Your task to perform on an android device: clear history in the chrome app Image 0: 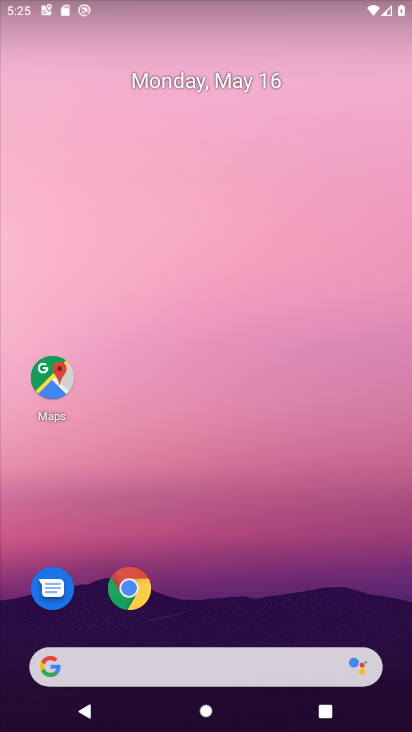
Step 0: click (140, 596)
Your task to perform on an android device: clear history in the chrome app Image 1: 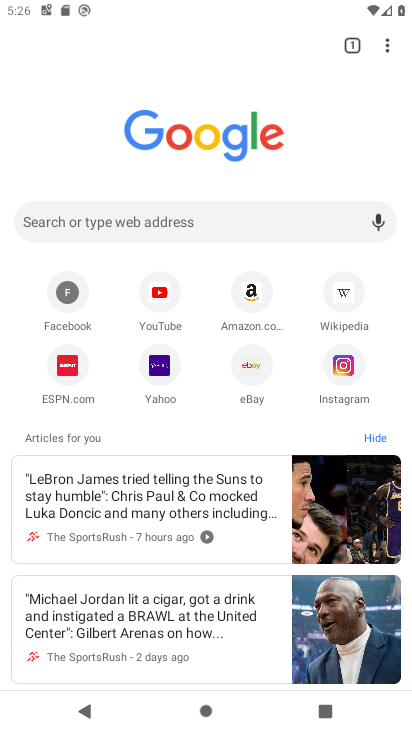
Step 1: click (390, 47)
Your task to perform on an android device: clear history in the chrome app Image 2: 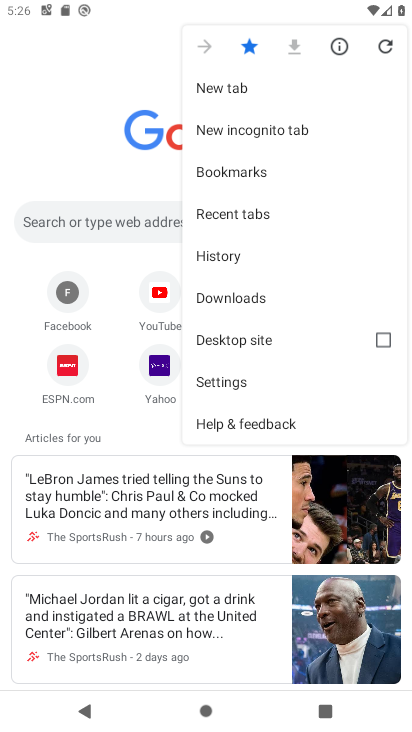
Step 2: click (238, 251)
Your task to perform on an android device: clear history in the chrome app Image 3: 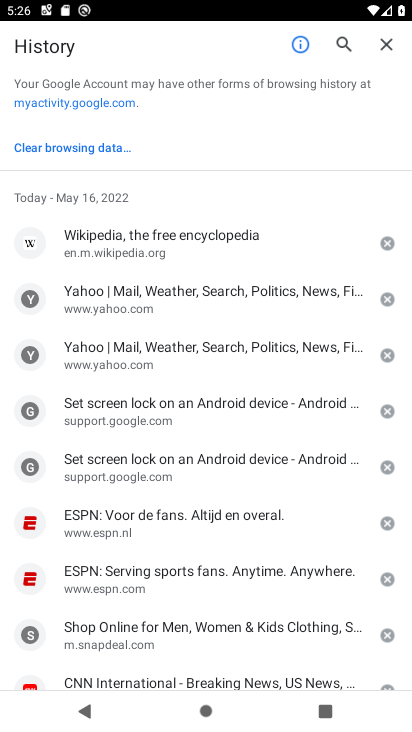
Step 3: click (81, 149)
Your task to perform on an android device: clear history in the chrome app Image 4: 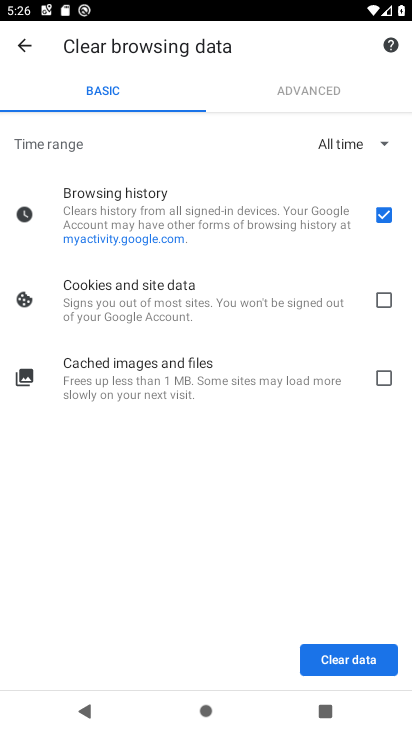
Step 4: click (358, 658)
Your task to perform on an android device: clear history in the chrome app Image 5: 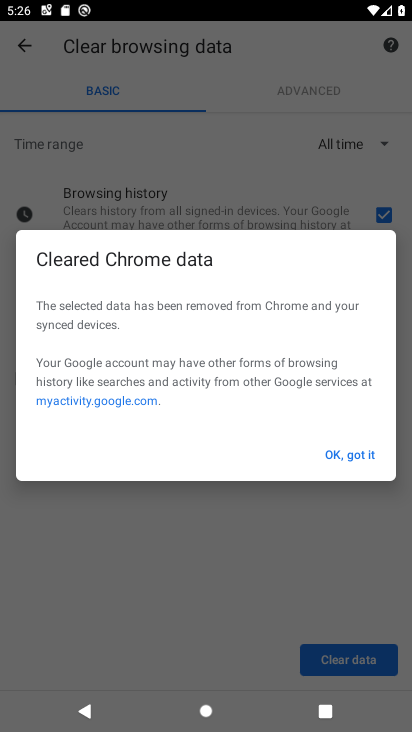
Step 5: click (358, 455)
Your task to perform on an android device: clear history in the chrome app Image 6: 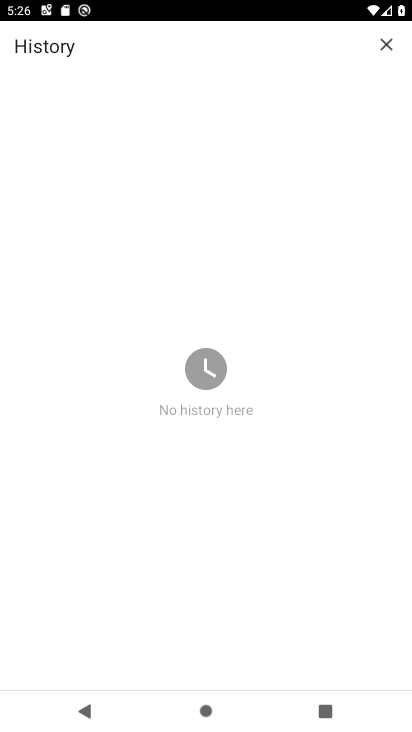
Step 6: task complete